Your task to perform on an android device: turn on data saver in the chrome app Image 0: 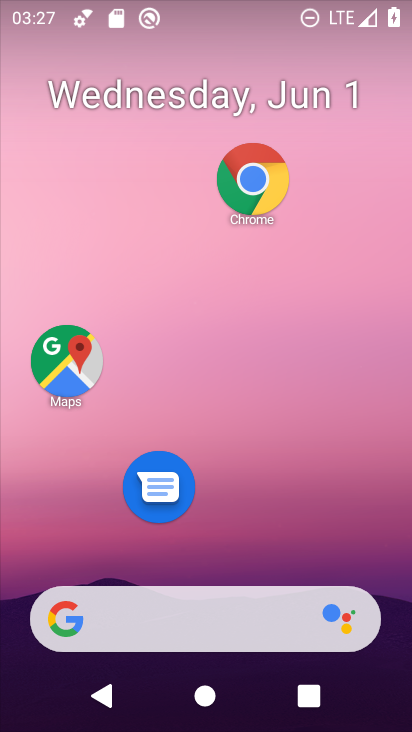
Step 0: drag from (282, 565) to (248, 253)
Your task to perform on an android device: turn on data saver in the chrome app Image 1: 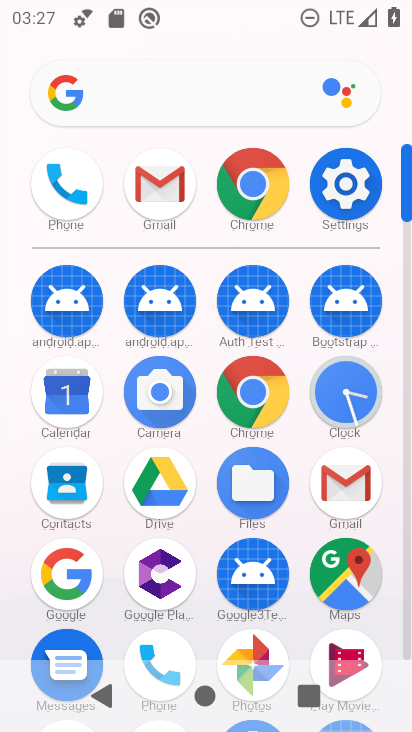
Step 1: click (252, 164)
Your task to perform on an android device: turn on data saver in the chrome app Image 2: 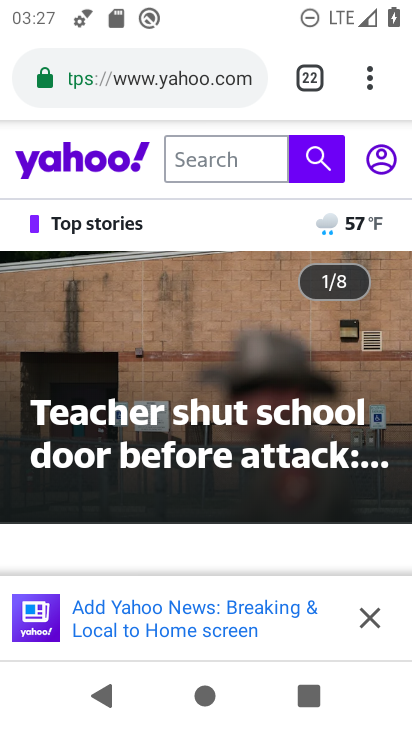
Step 2: click (358, 68)
Your task to perform on an android device: turn on data saver in the chrome app Image 3: 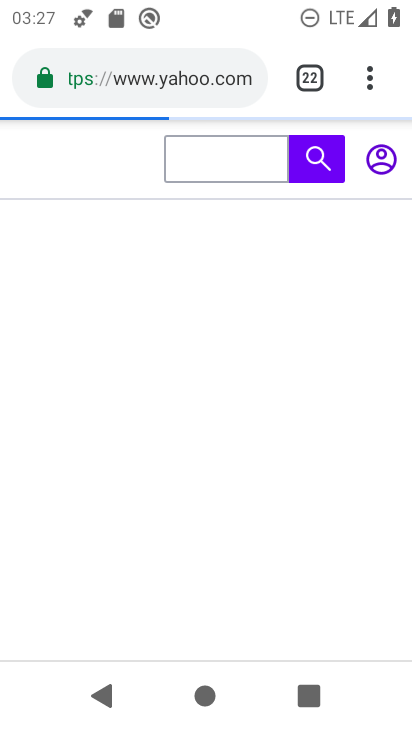
Step 3: click (363, 73)
Your task to perform on an android device: turn on data saver in the chrome app Image 4: 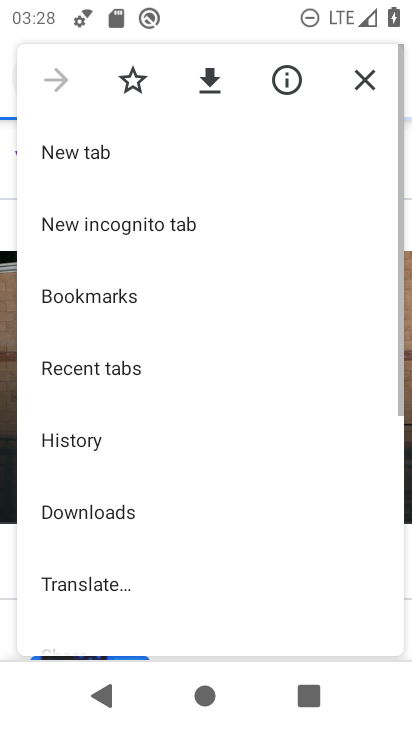
Step 4: drag from (167, 556) to (233, 215)
Your task to perform on an android device: turn on data saver in the chrome app Image 5: 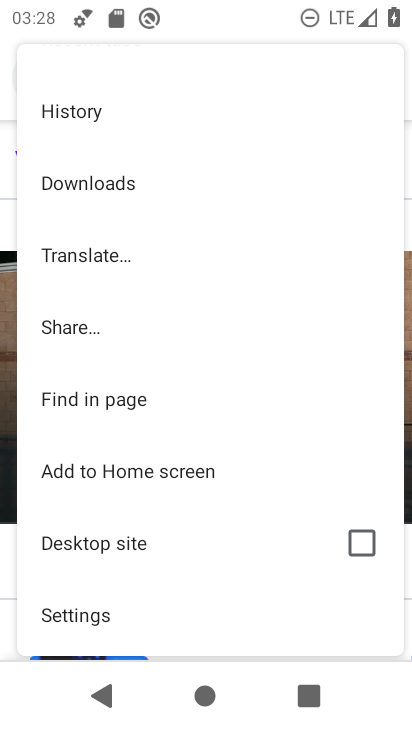
Step 5: drag from (138, 606) to (197, 332)
Your task to perform on an android device: turn on data saver in the chrome app Image 6: 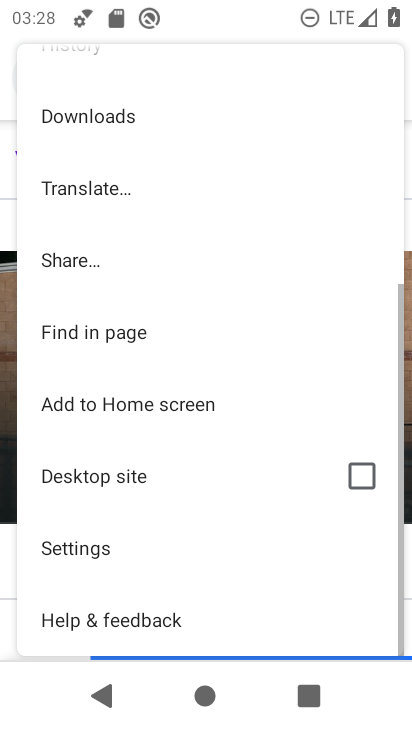
Step 6: click (112, 557)
Your task to perform on an android device: turn on data saver in the chrome app Image 7: 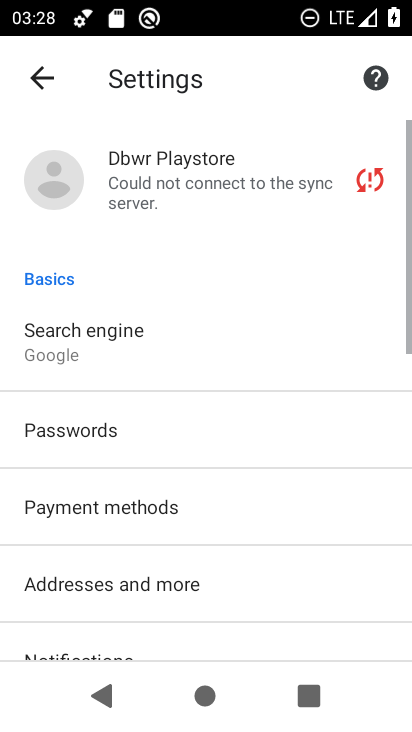
Step 7: drag from (181, 554) to (222, 186)
Your task to perform on an android device: turn on data saver in the chrome app Image 8: 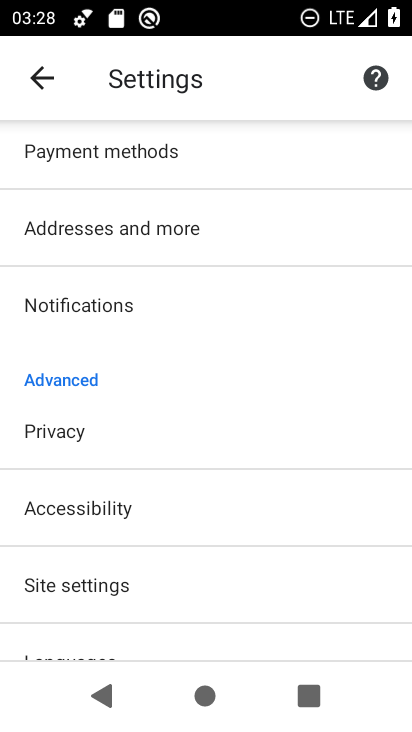
Step 8: drag from (116, 543) to (154, 283)
Your task to perform on an android device: turn on data saver in the chrome app Image 9: 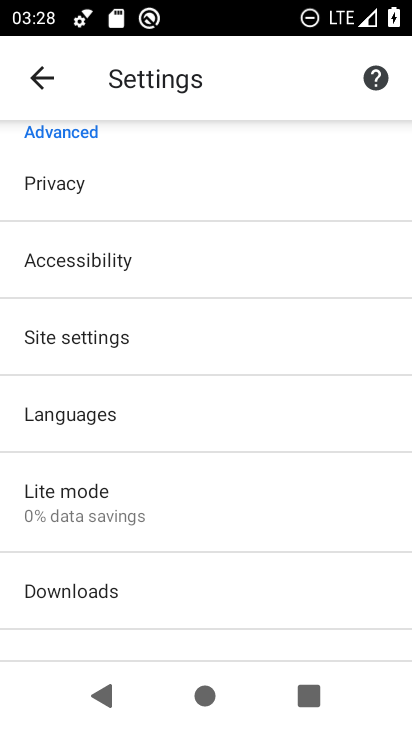
Step 9: click (121, 477)
Your task to perform on an android device: turn on data saver in the chrome app Image 10: 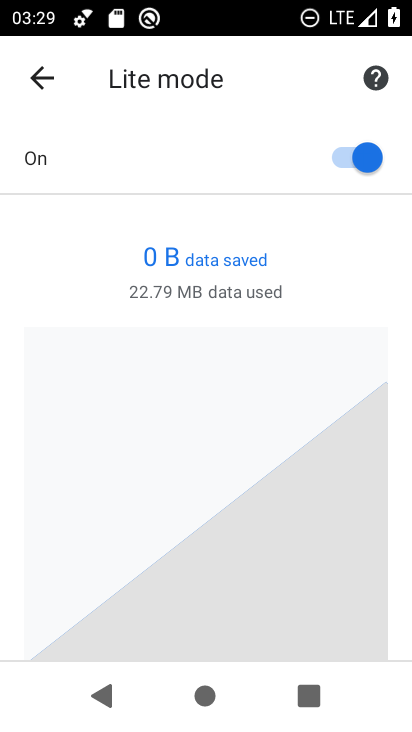
Step 10: task complete